Your task to perform on an android device: Open accessibility settings Image 0: 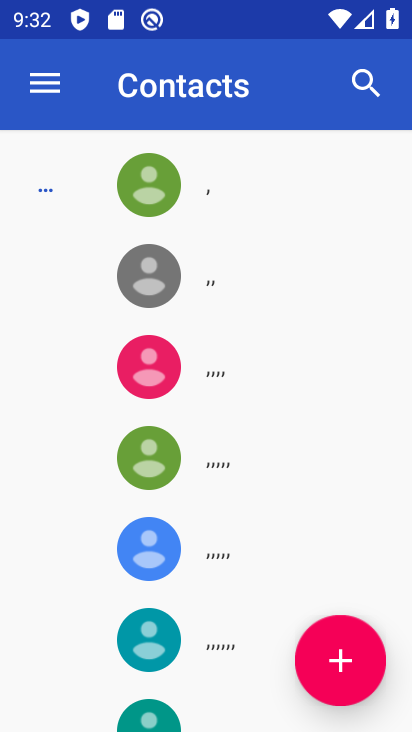
Step 0: press home button
Your task to perform on an android device: Open accessibility settings Image 1: 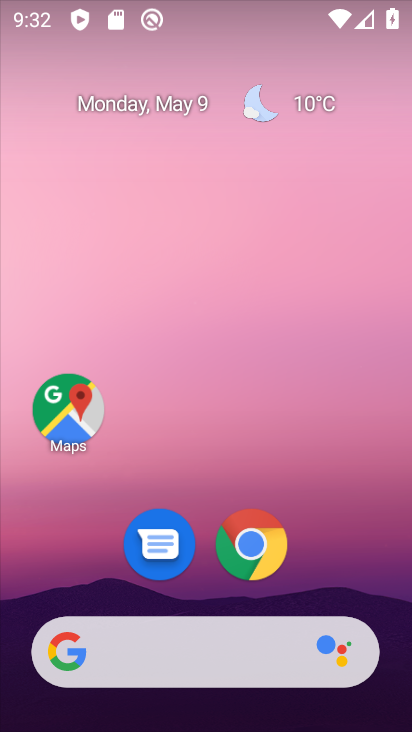
Step 1: drag from (401, 545) to (392, 216)
Your task to perform on an android device: Open accessibility settings Image 2: 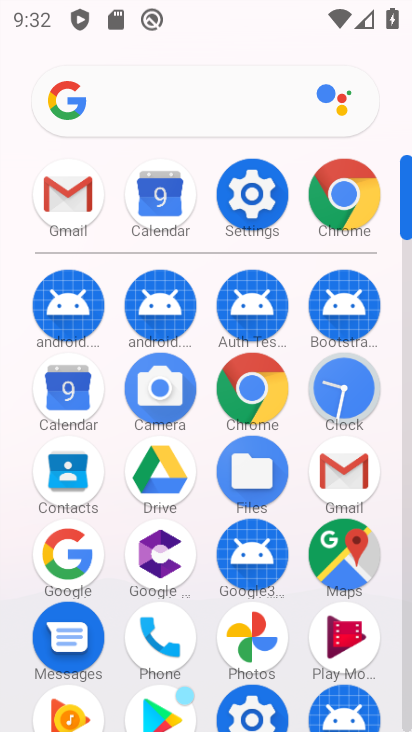
Step 2: click (251, 189)
Your task to perform on an android device: Open accessibility settings Image 3: 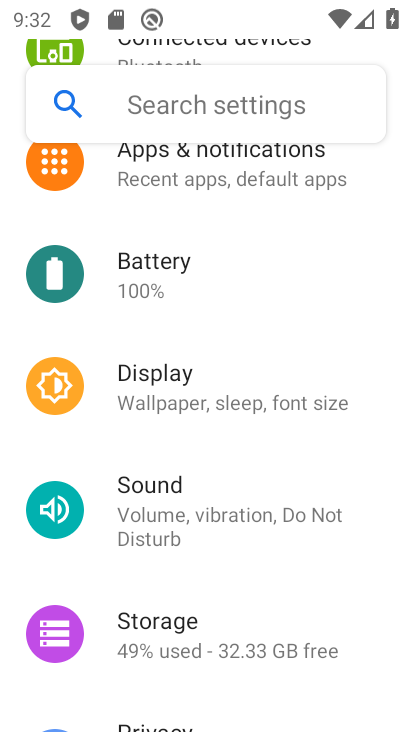
Step 3: drag from (372, 682) to (391, 472)
Your task to perform on an android device: Open accessibility settings Image 4: 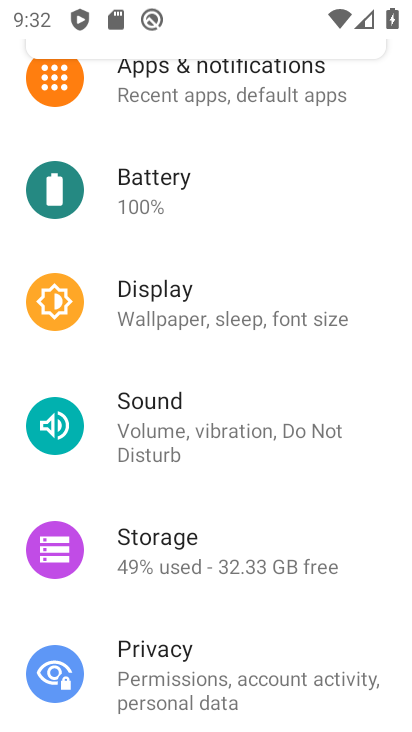
Step 4: drag from (394, 704) to (397, 398)
Your task to perform on an android device: Open accessibility settings Image 5: 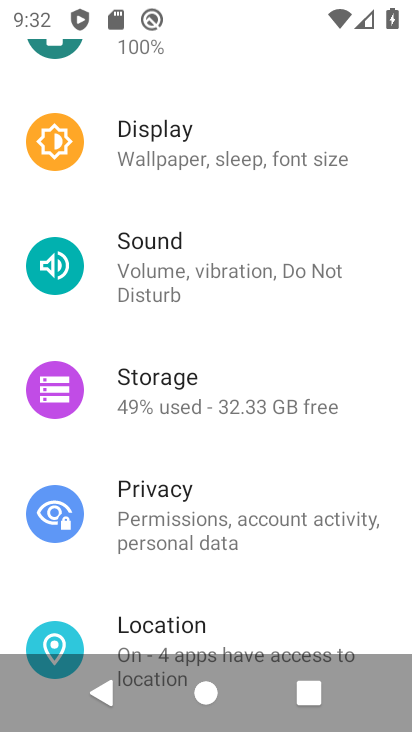
Step 5: drag from (394, 626) to (407, 471)
Your task to perform on an android device: Open accessibility settings Image 6: 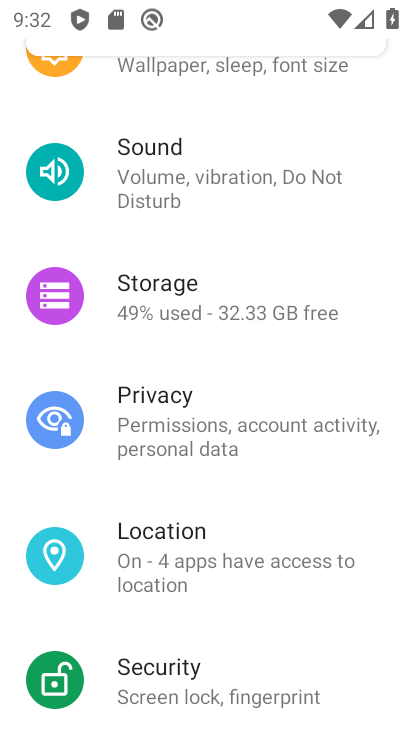
Step 6: drag from (383, 659) to (395, 355)
Your task to perform on an android device: Open accessibility settings Image 7: 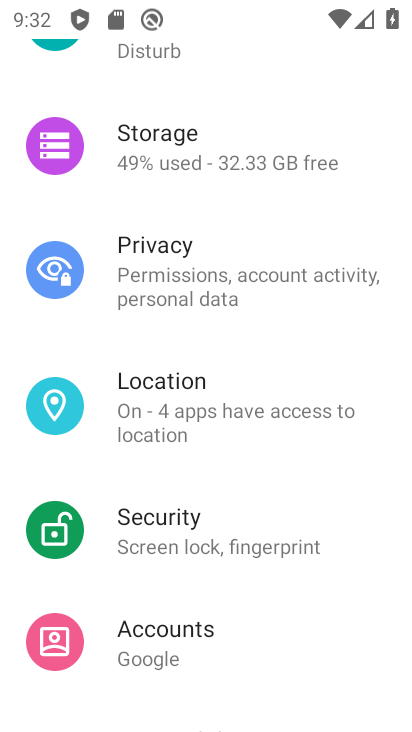
Step 7: drag from (375, 573) to (364, 402)
Your task to perform on an android device: Open accessibility settings Image 8: 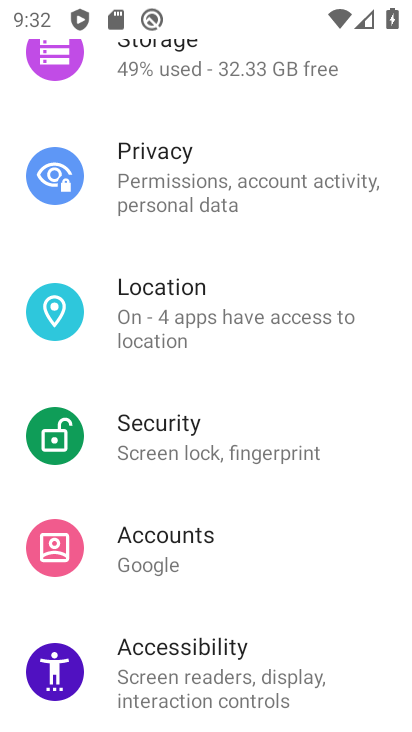
Step 8: drag from (363, 675) to (372, 407)
Your task to perform on an android device: Open accessibility settings Image 9: 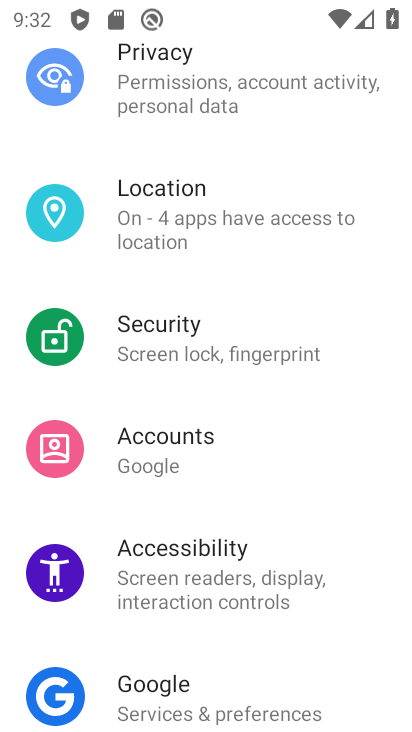
Step 9: click (187, 567)
Your task to perform on an android device: Open accessibility settings Image 10: 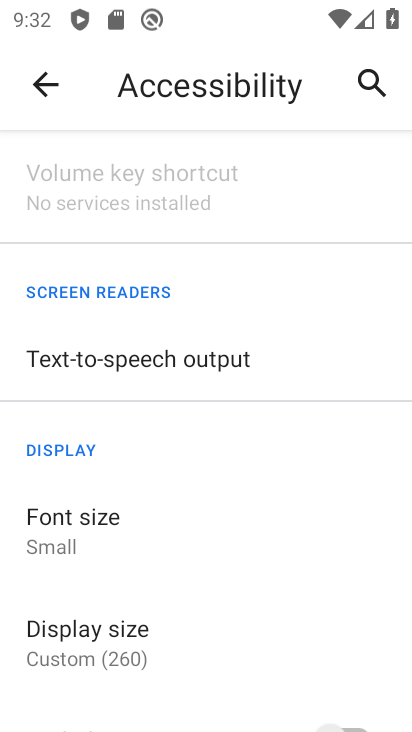
Step 10: click (346, 409)
Your task to perform on an android device: Open accessibility settings Image 11: 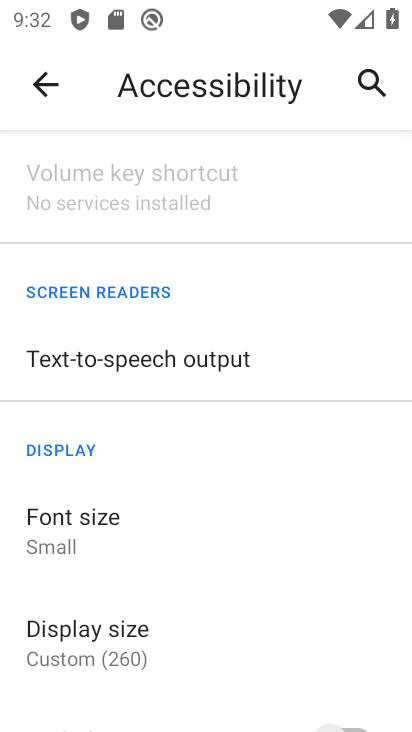
Step 11: task complete